Your task to perform on an android device: check android version Image 0: 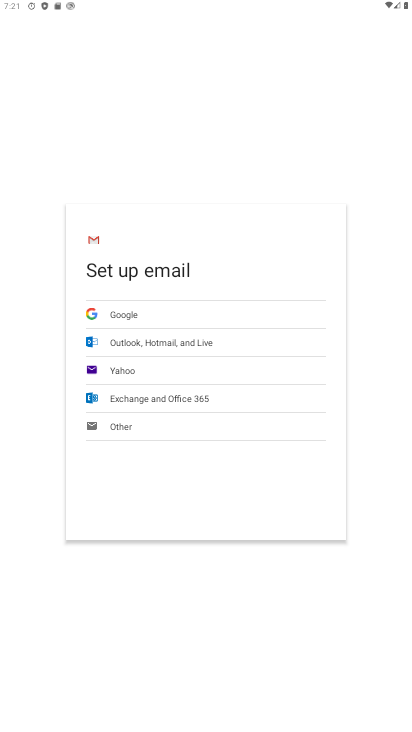
Step 0: press home button
Your task to perform on an android device: check android version Image 1: 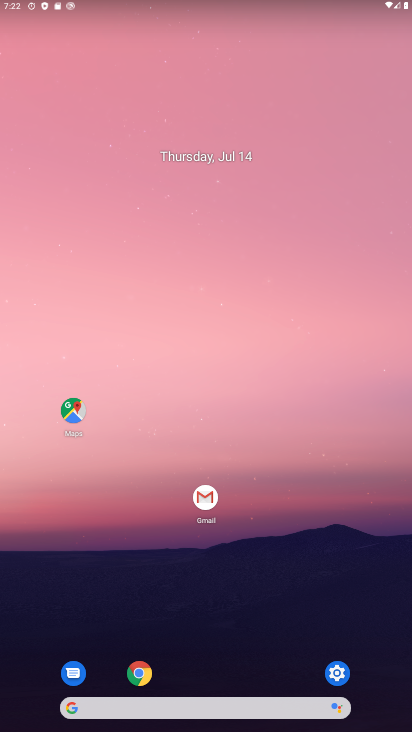
Step 1: click (325, 674)
Your task to perform on an android device: check android version Image 2: 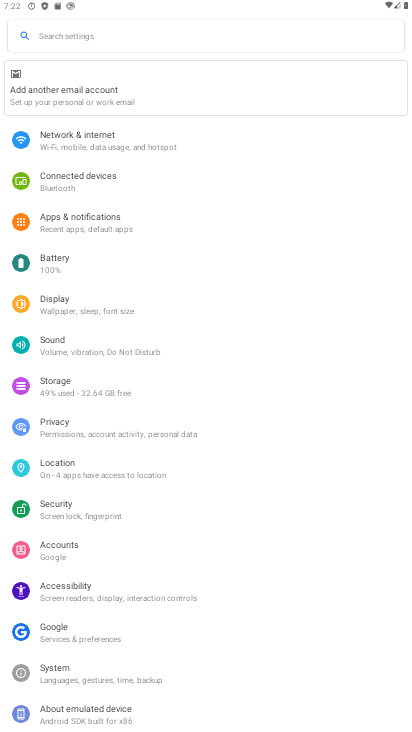
Step 2: click (105, 43)
Your task to perform on an android device: check android version Image 3: 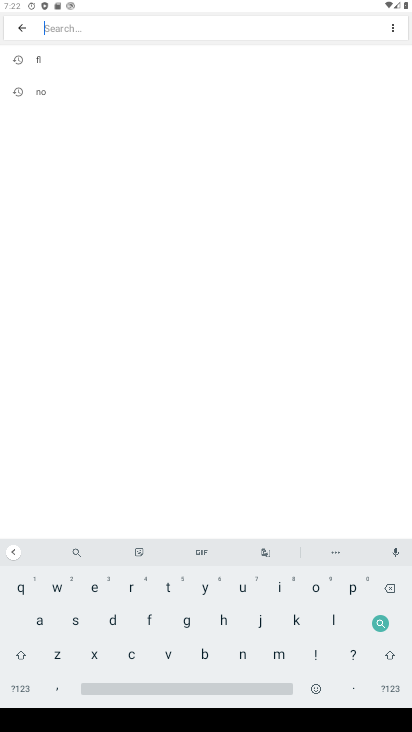
Step 3: click (32, 626)
Your task to perform on an android device: check android version Image 4: 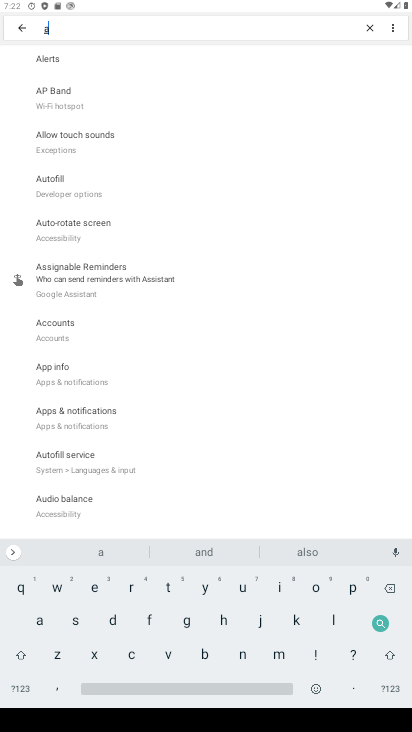
Step 4: click (243, 654)
Your task to perform on an android device: check android version Image 5: 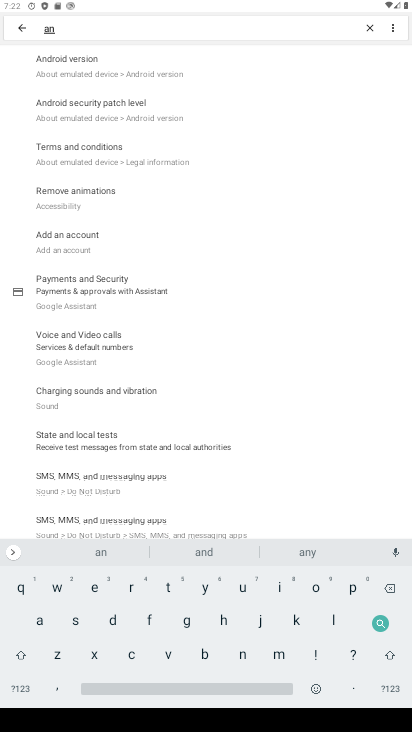
Step 5: click (158, 73)
Your task to perform on an android device: check android version Image 6: 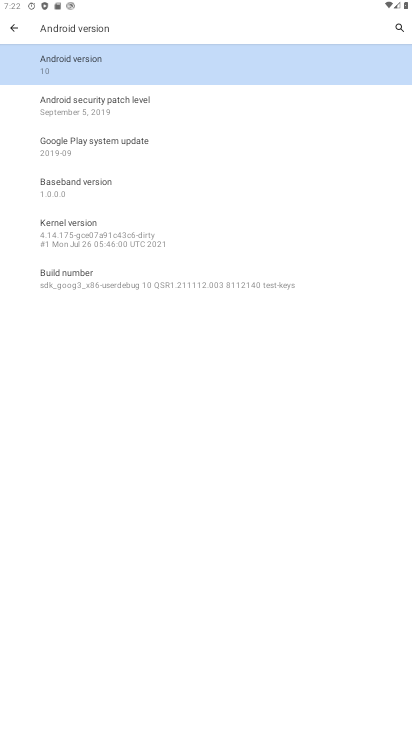
Step 6: click (90, 70)
Your task to perform on an android device: check android version Image 7: 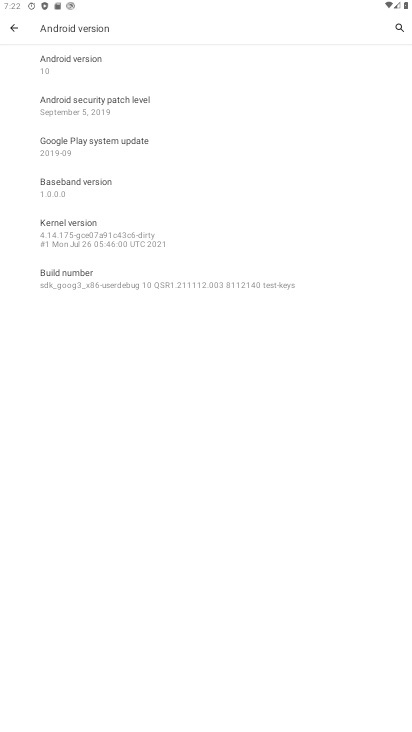
Step 7: task complete